Your task to perform on an android device: Go to settings Image 0: 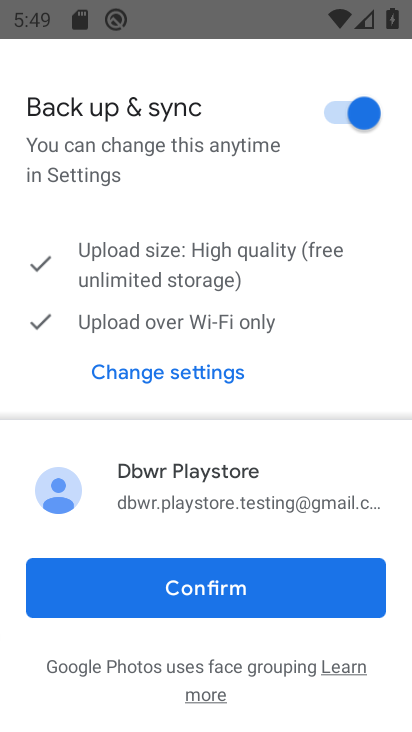
Step 0: click (317, 594)
Your task to perform on an android device: Go to settings Image 1: 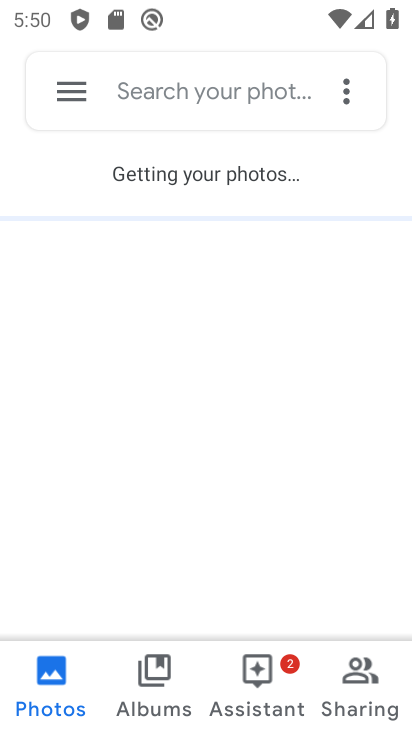
Step 1: press home button
Your task to perform on an android device: Go to settings Image 2: 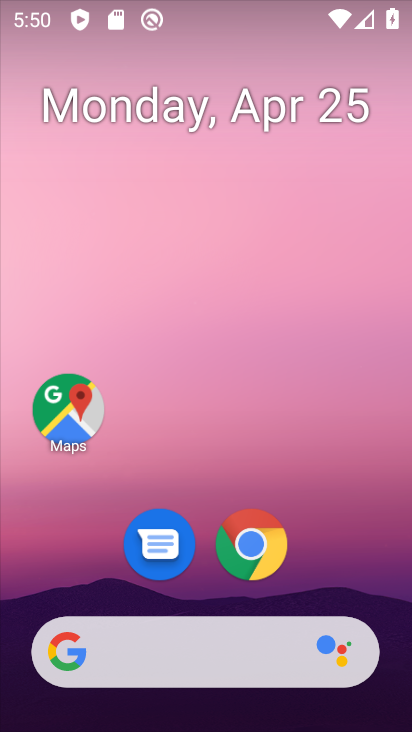
Step 2: drag from (351, 558) to (367, 130)
Your task to perform on an android device: Go to settings Image 3: 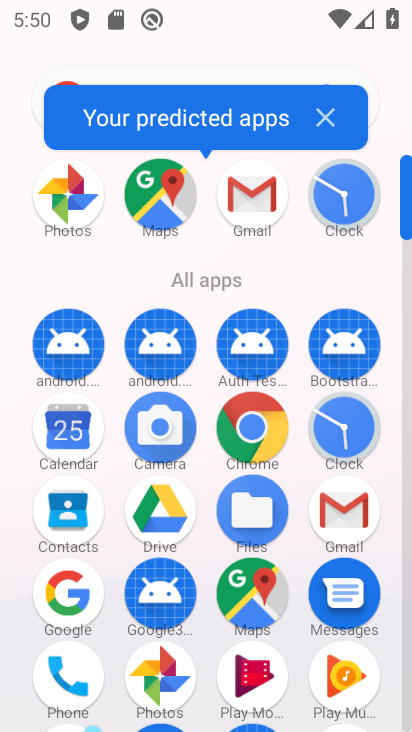
Step 3: drag from (288, 268) to (313, 24)
Your task to perform on an android device: Go to settings Image 4: 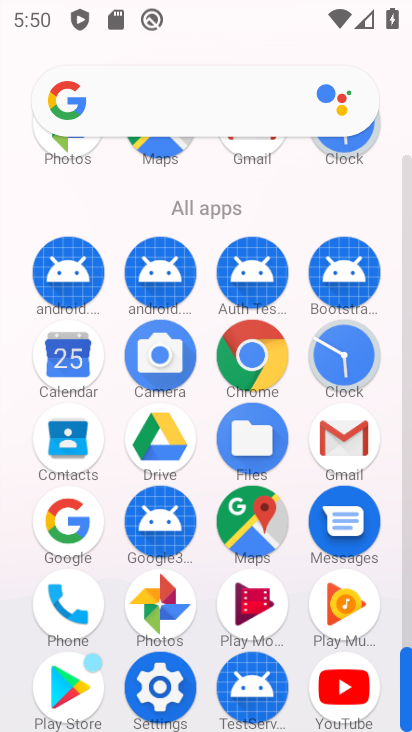
Step 4: click (160, 700)
Your task to perform on an android device: Go to settings Image 5: 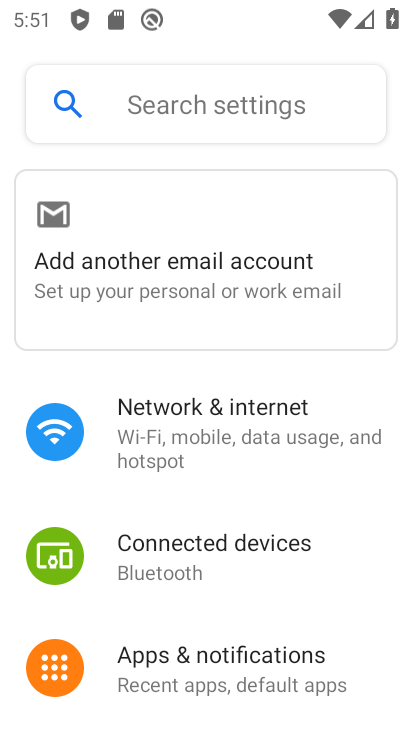
Step 5: task complete